Your task to perform on an android device: check android version Image 0: 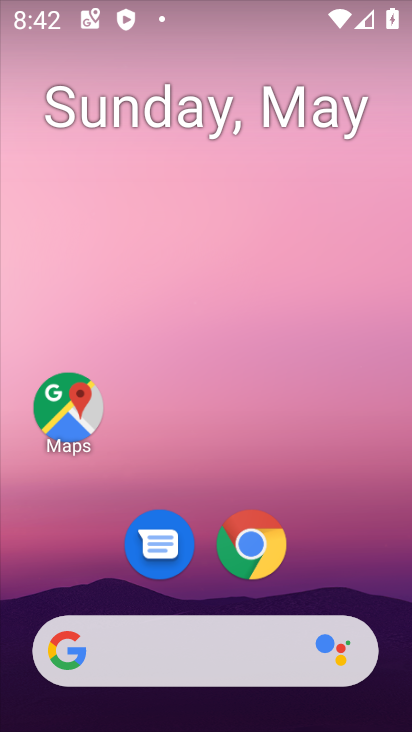
Step 0: drag from (308, 543) to (197, 21)
Your task to perform on an android device: check android version Image 1: 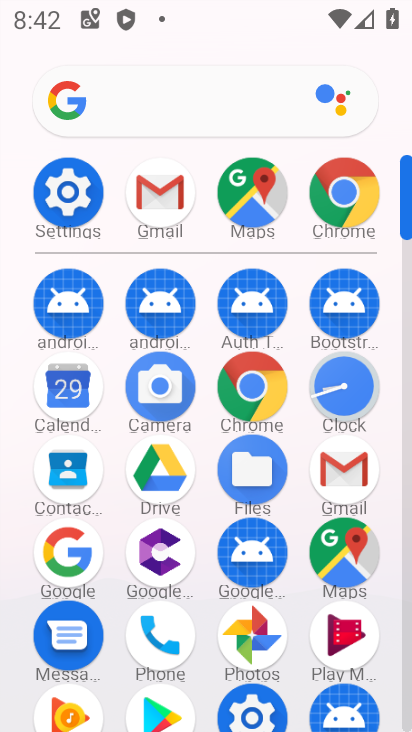
Step 1: click (95, 197)
Your task to perform on an android device: check android version Image 2: 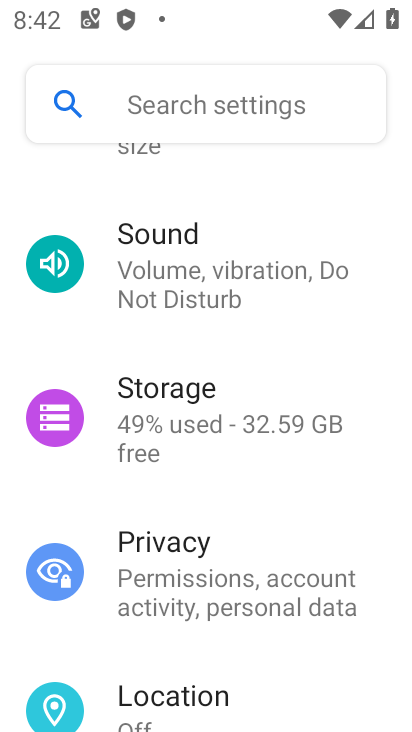
Step 2: click (211, 49)
Your task to perform on an android device: check android version Image 3: 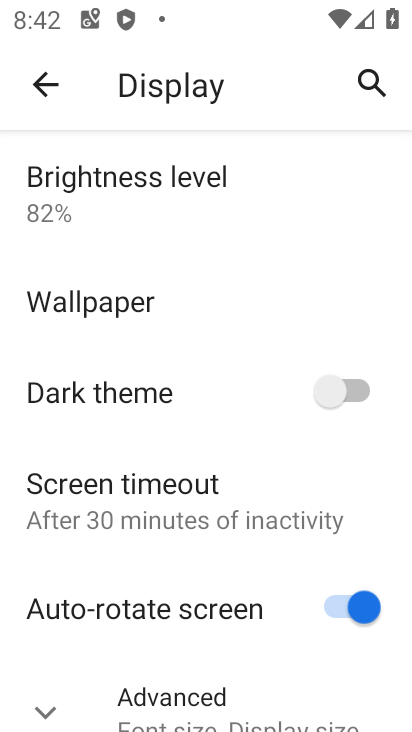
Step 3: click (35, 88)
Your task to perform on an android device: check android version Image 4: 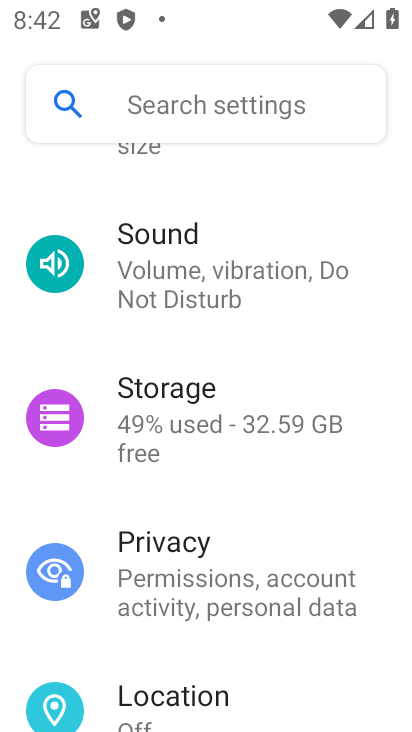
Step 4: drag from (205, 625) to (166, 192)
Your task to perform on an android device: check android version Image 5: 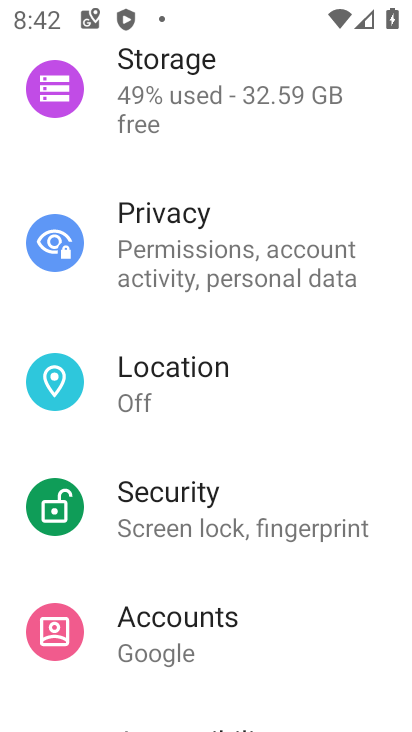
Step 5: drag from (264, 663) to (213, 191)
Your task to perform on an android device: check android version Image 6: 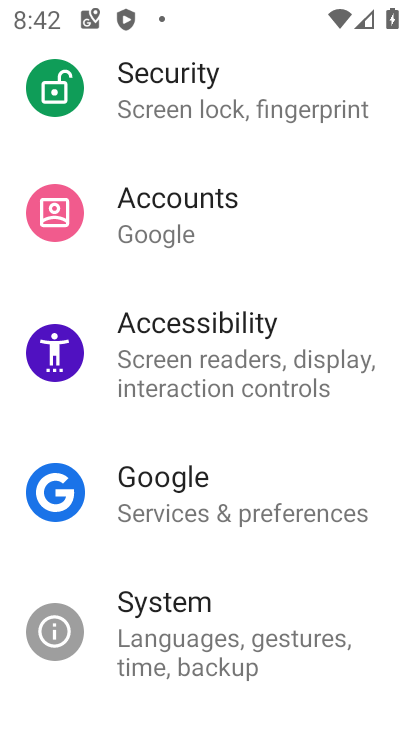
Step 6: drag from (279, 617) to (245, 167)
Your task to perform on an android device: check android version Image 7: 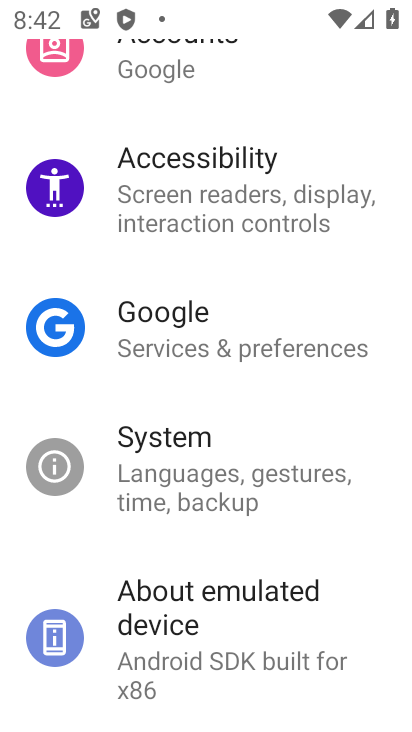
Step 7: click (283, 651)
Your task to perform on an android device: check android version Image 8: 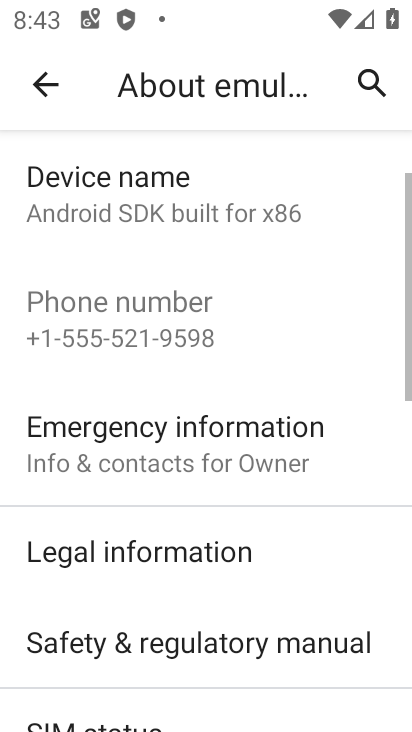
Step 8: drag from (185, 640) to (196, 63)
Your task to perform on an android device: check android version Image 9: 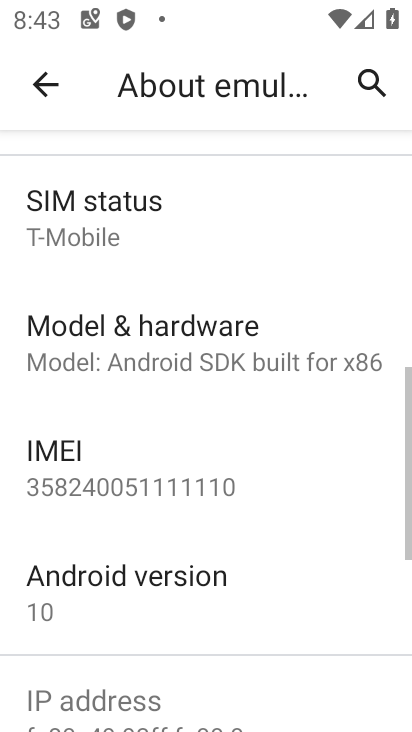
Step 9: click (109, 108)
Your task to perform on an android device: check android version Image 10: 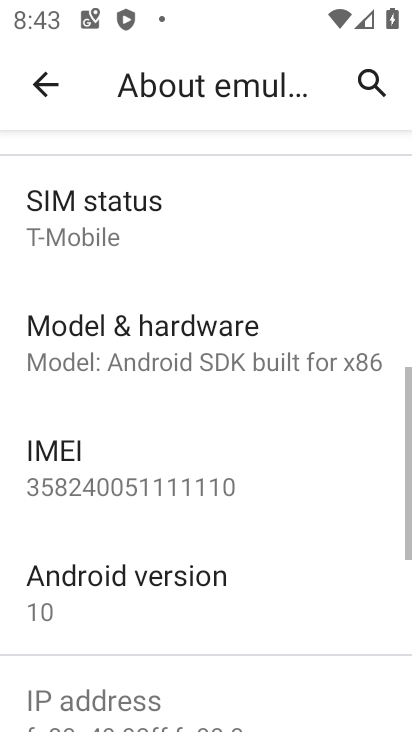
Step 10: drag from (206, 636) to (156, 183)
Your task to perform on an android device: check android version Image 11: 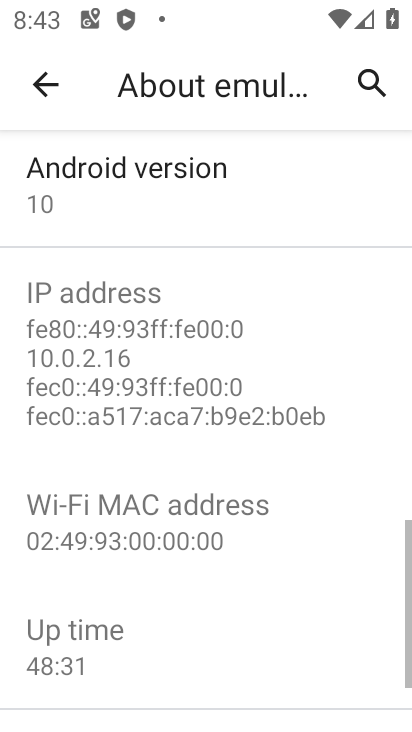
Step 11: drag from (194, 656) to (163, 220)
Your task to perform on an android device: check android version Image 12: 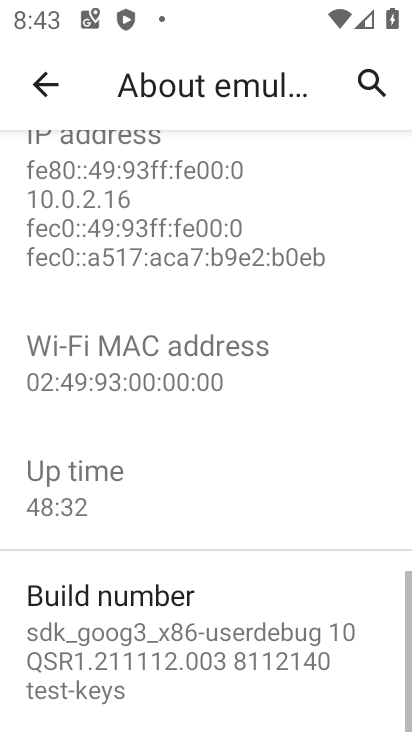
Step 12: drag from (166, 217) to (199, 712)
Your task to perform on an android device: check android version Image 13: 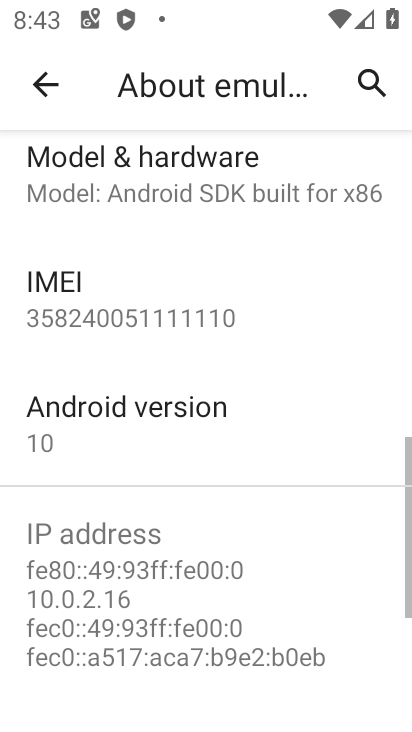
Step 13: drag from (115, 359) to (128, 662)
Your task to perform on an android device: check android version Image 14: 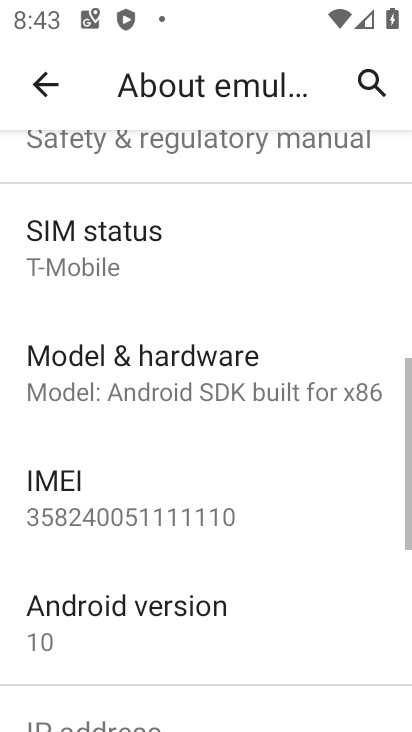
Step 14: click (118, 632)
Your task to perform on an android device: check android version Image 15: 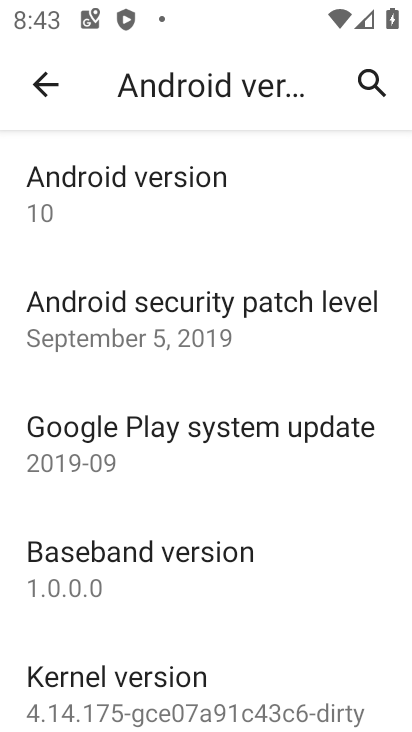
Step 15: task complete